Your task to perform on an android device: create a new album in the google photos Image 0: 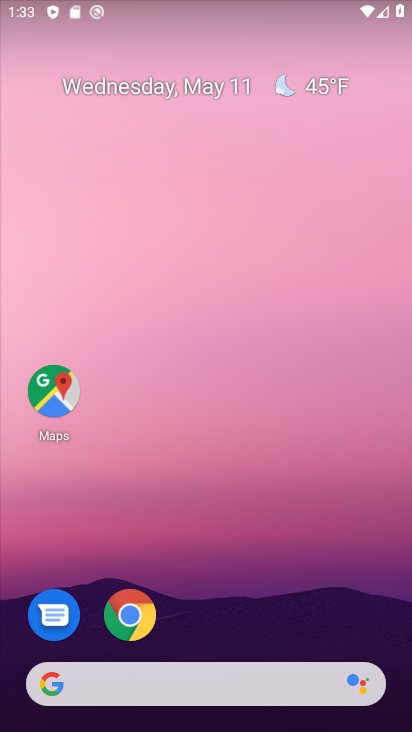
Step 0: drag from (225, 666) to (216, 91)
Your task to perform on an android device: create a new album in the google photos Image 1: 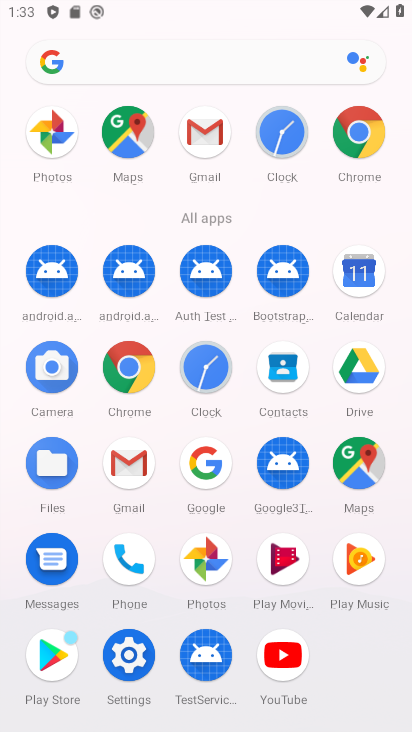
Step 1: click (219, 563)
Your task to perform on an android device: create a new album in the google photos Image 2: 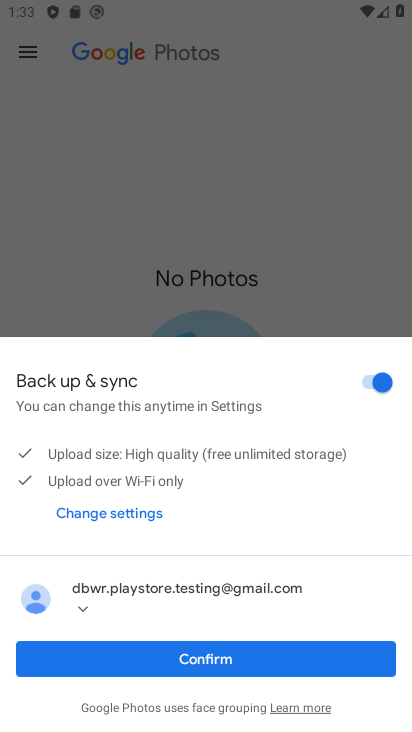
Step 2: click (295, 635)
Your task to perform on an android device: create a new album in the google photos Image 3: 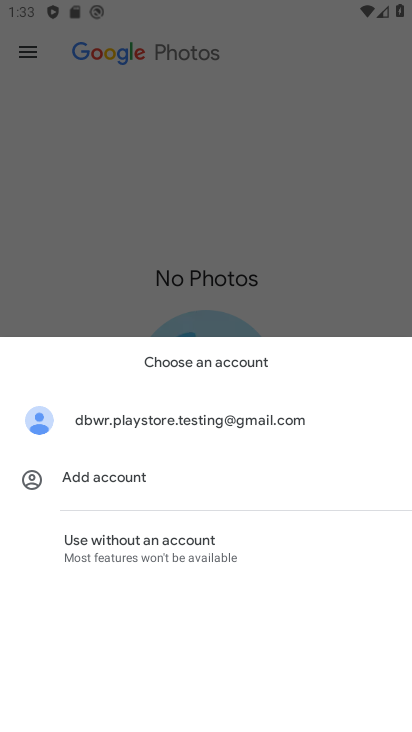
Step 3: click (197, 422)
Your task to perform on an android device: create a new album in the google photos Image 4: 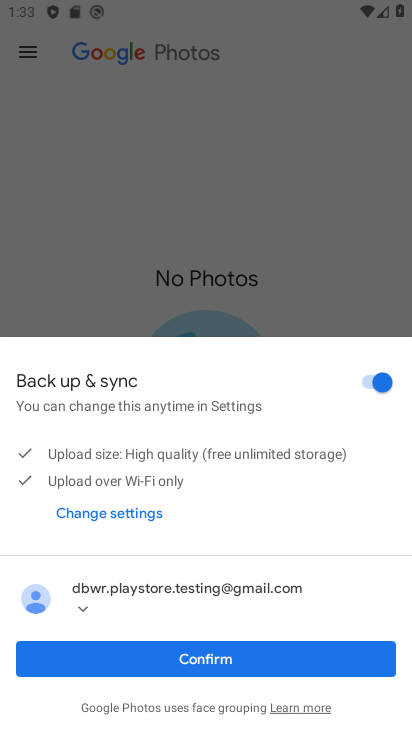
Step 4: click (197, 422)
Your task to perform on an android device: create a new album in the google photos Image 5: 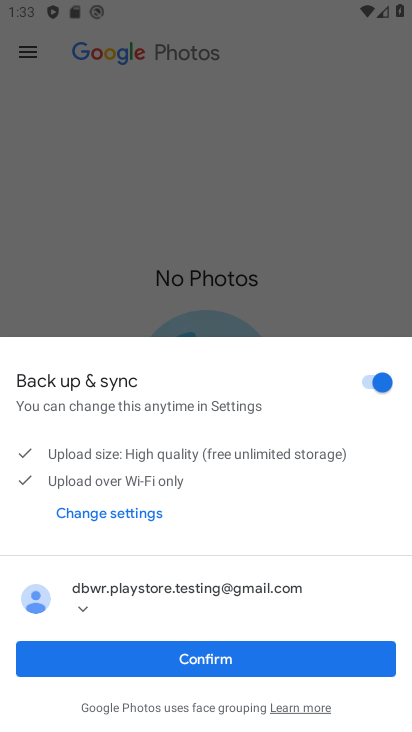
Step 5: click (272, 677)
Your task to perform on an android device: create a new album in the google photos Image 6: 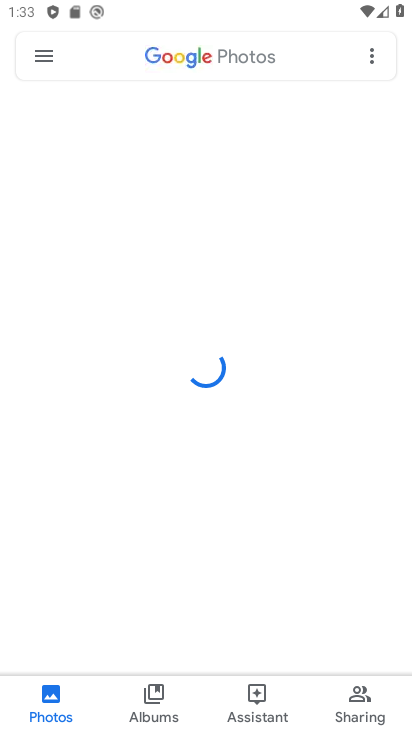
Step 6: click (350, 612)
Your task to perform on an android device: create a new album in the google photos Image 7: 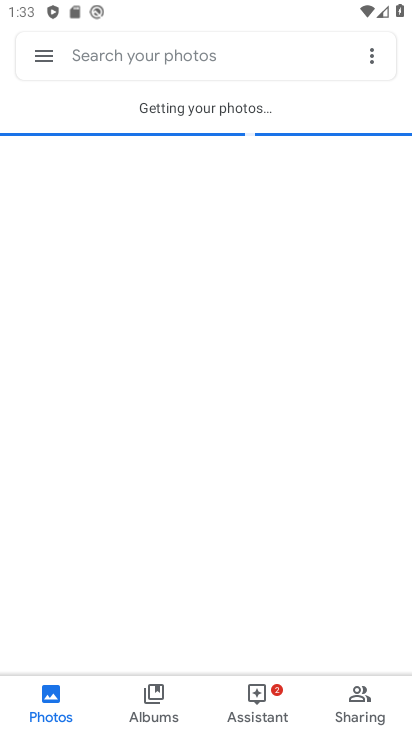
Step 7: click (361, 704)
Your task to perform on an android device: create a new album in the google photos Image 8: 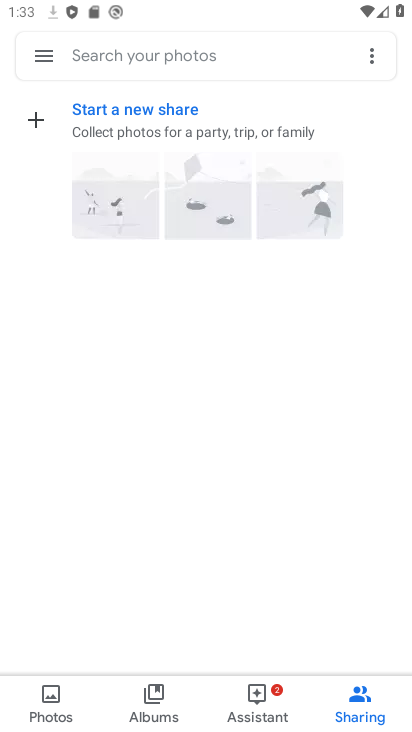
Step 8: click (153, 725)
Your task to perform on an android device: create a new album in the google photos Image 9: 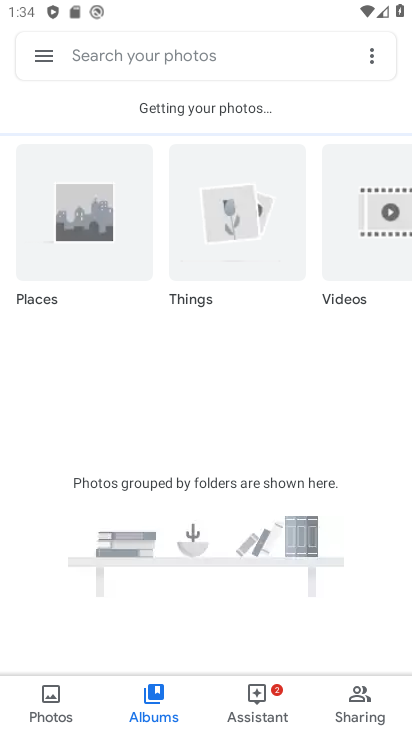
Step 9: click (261, 708)
Your task to perform on an android device: create a new album in the google photos Image 10: 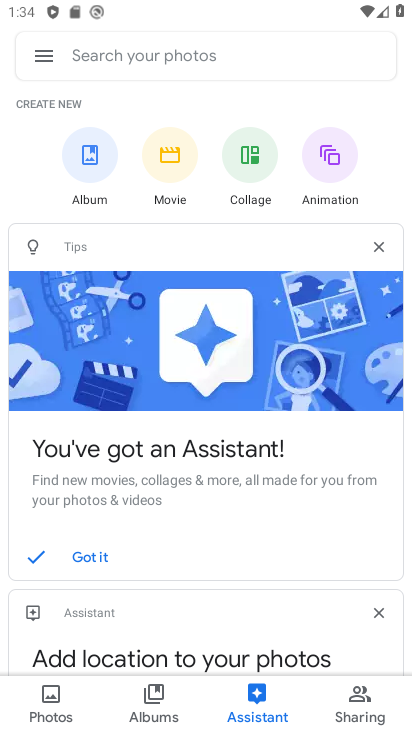
Step 10: click (99, 153)
Your task to perform on an android device: create a new album in the google photos Image 11: 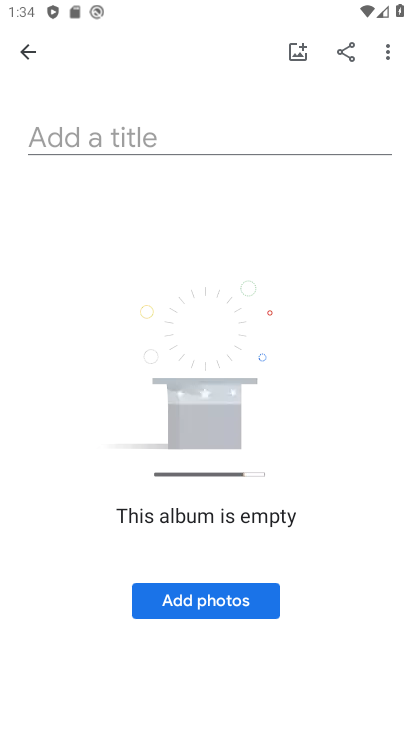
Step 11: click (226, 139)
Your task to perform on an android device: create a new album in the google photos Image 12: 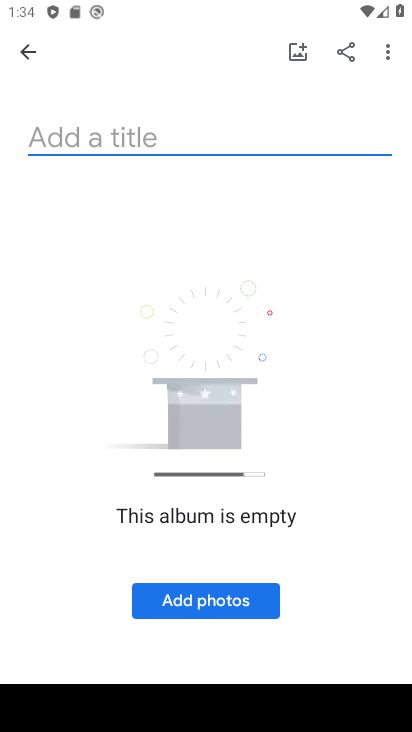
Step 12: type "cxncz"
Your task to perform on an android device: create a new album in the google photos Image 13: 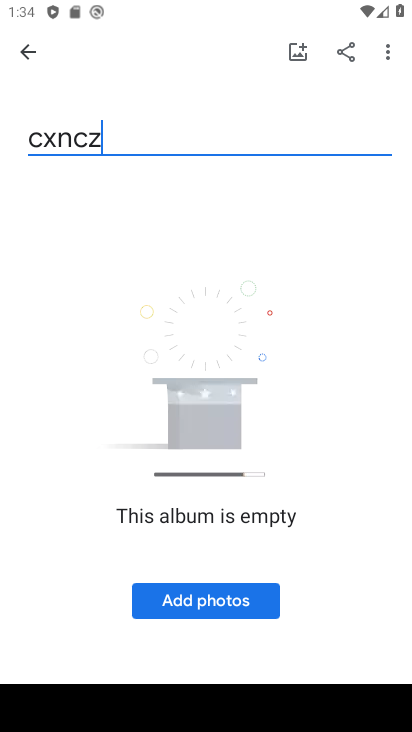
Step 13: click (248, 598)
Your task to perform on an android device: create a new album in the google photos Image 14: 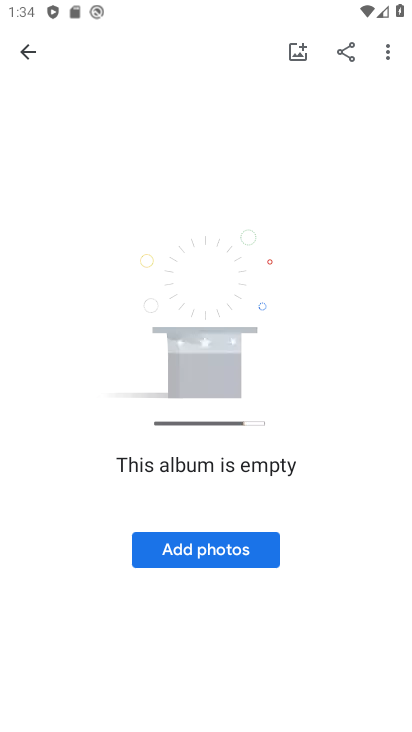
Step 14: click (218, 558)
Your task to perform on an android device: create a new album in the google photos Image 15: 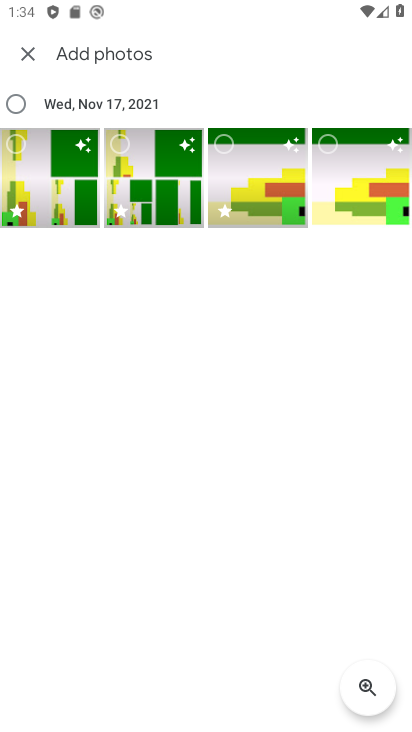
Step 15: click (219, 371)
Your task to perform on an android device: create a new album in the google photos Image 16: 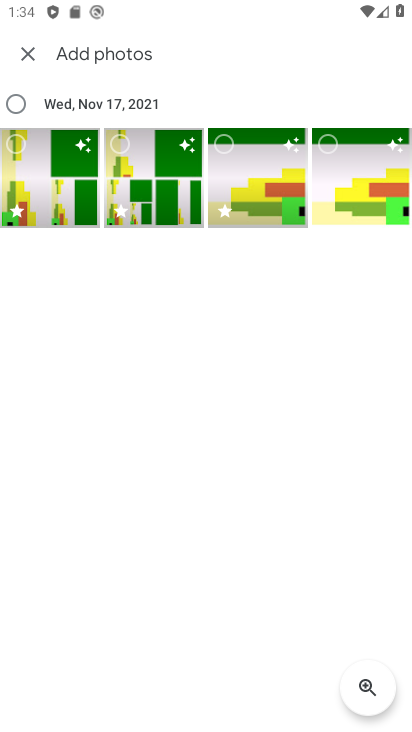
Step 16: click (17, 97)
Your task to perform on an android device: create a new album in the google photos Image 17: 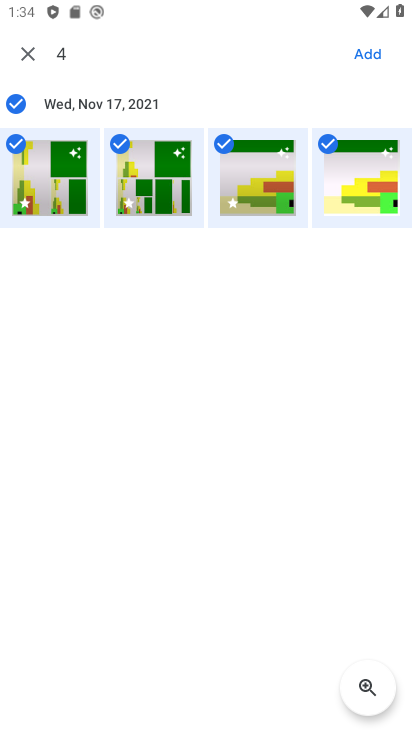
Step 17: click (366, 60)
Your task to perform on an android device: create a new album in the google photos Image 18: 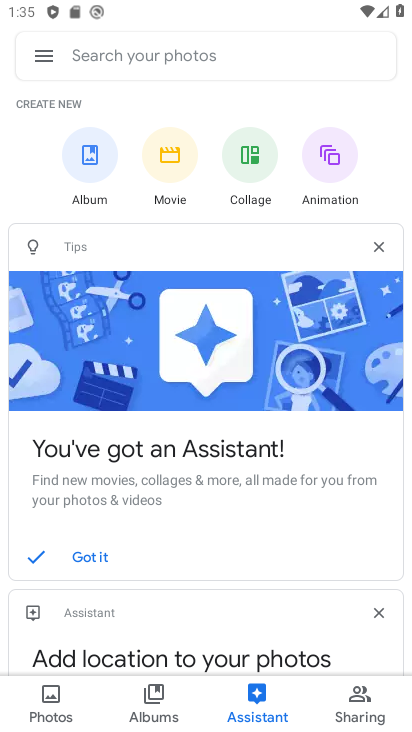
Step 18: task complete